Your task to perform on an android device: manage bookmarks in the chrome app Image 0: 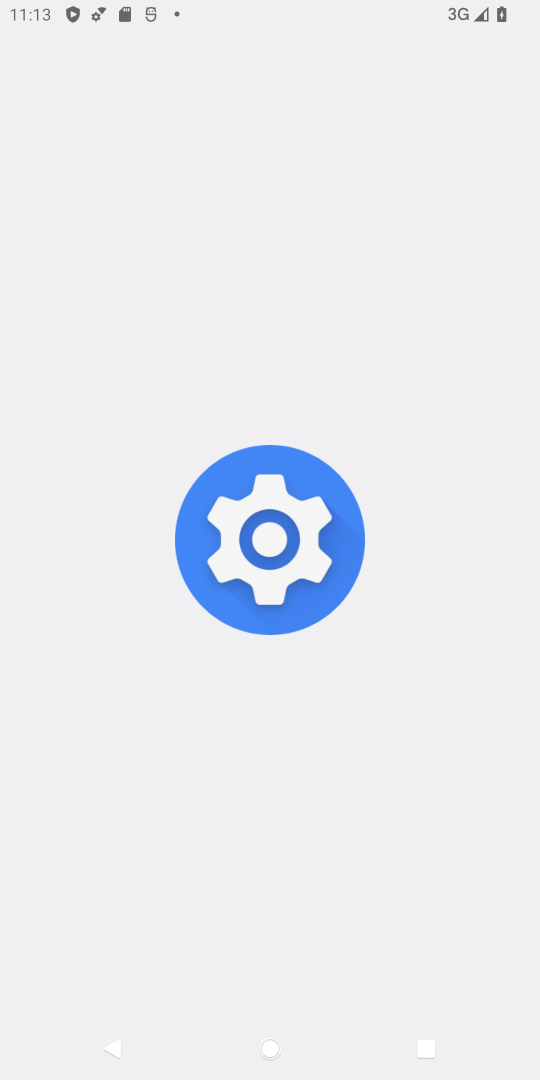
Step 0: drag from (436, 777) to (208, 100)
Your task to perform on an android device: manage bookmarks in the chrome app Image 1: 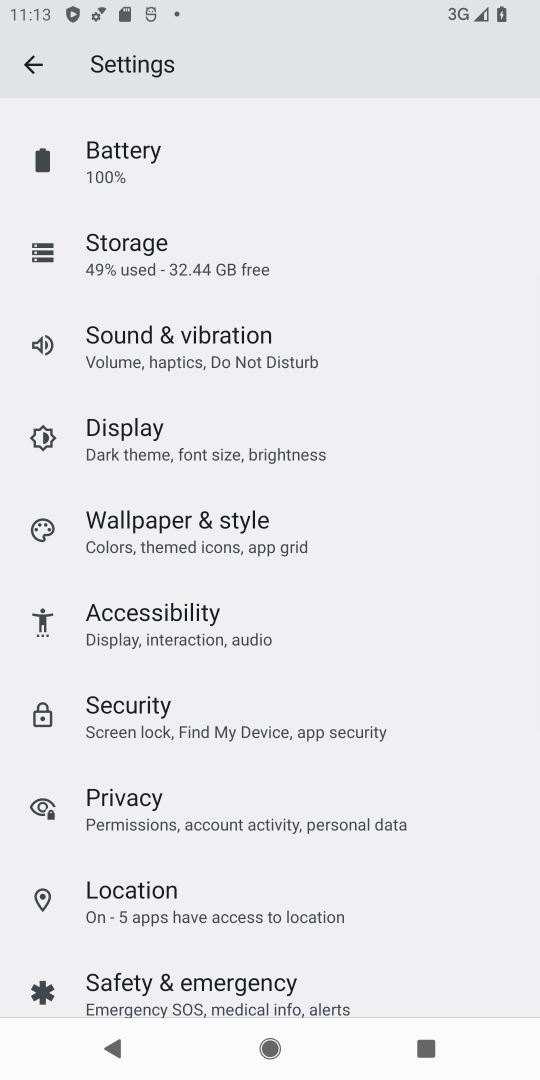
Step 1: press home button
Your task to perform on an android device: manage bookmarks in the chrome app Image 2: 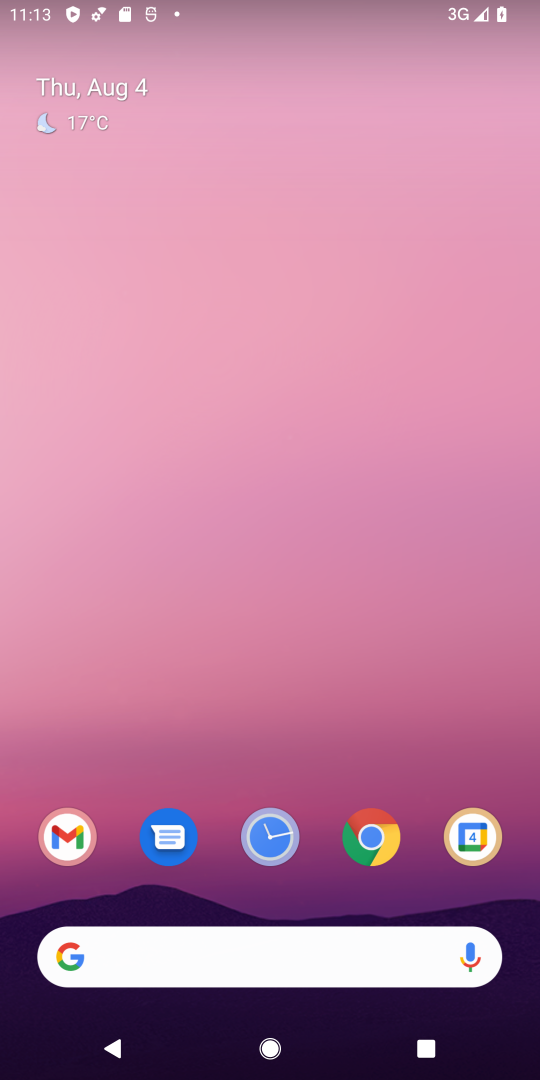
Step 2: drag from (475, 997) to (228, 141)
Your task to perform on an android device: manage bookmarks in the chrome app Image 3: 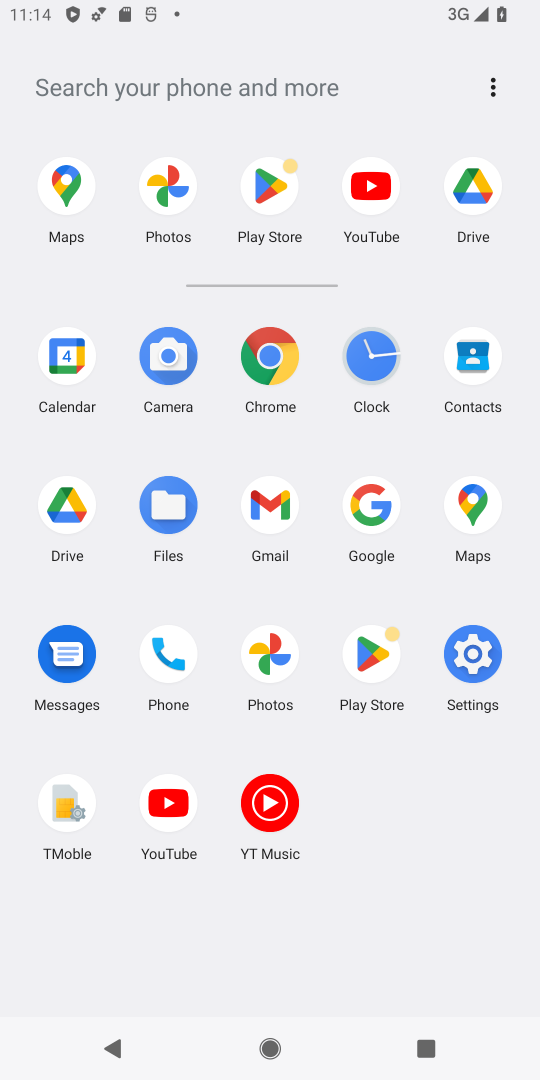
Step 3: click (265, 372)
Your task to perform on an android device: manage bookmarks in the chrome app Image 4: 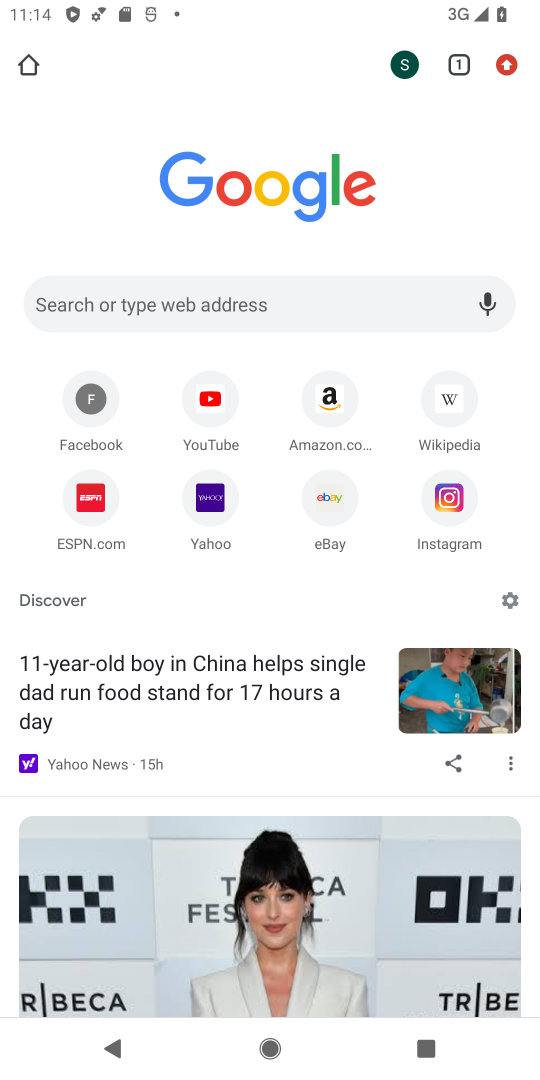
Step 4: task complete